Your task to perform on an android device: View the shopping cart on bestbuy. Add bose soundsport free to the cart on bestbuy Image 0: 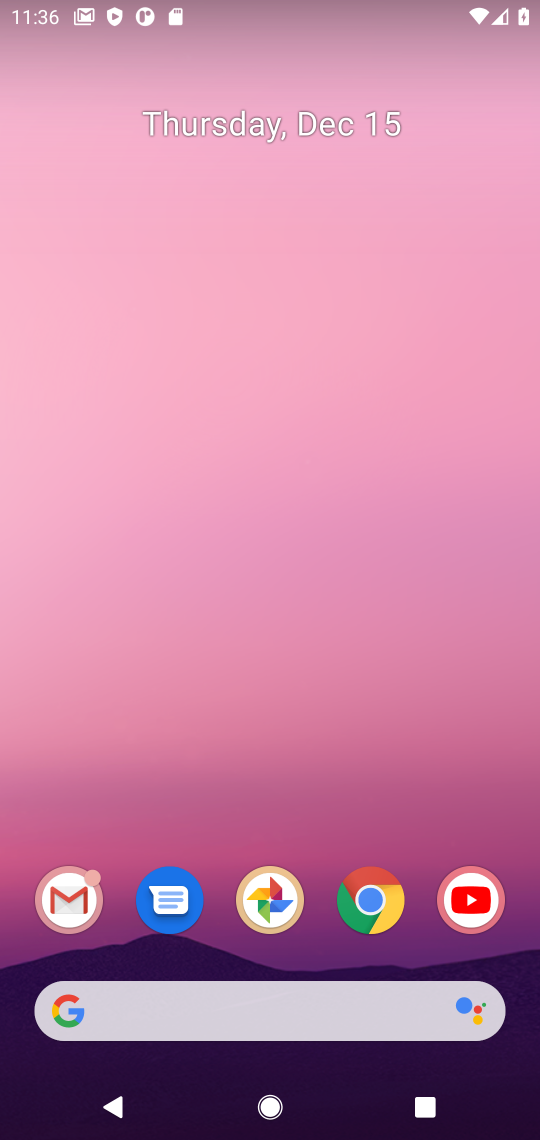
Step 0: click (380, 904)
Your task to perform on an android device: View the shopping cart on bestbuy. Add bose soundsport free to the cart on bestbuy Image 1: 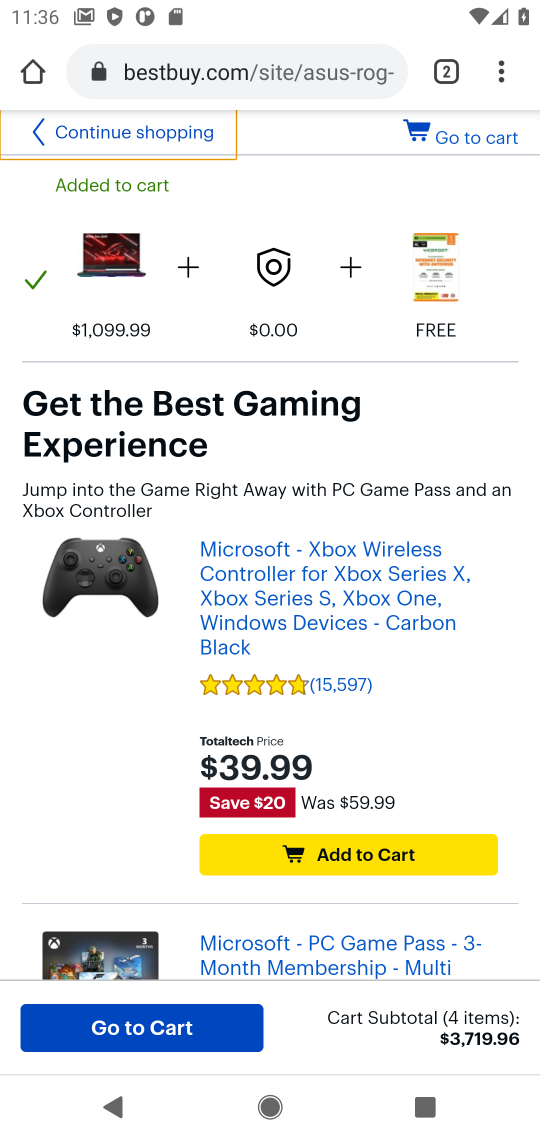
Step 1: press back button
Your task to perform on an android device: View the shopping cart on bestbuy. Add bose soundsport free to the cart on bestbuy Image 2: 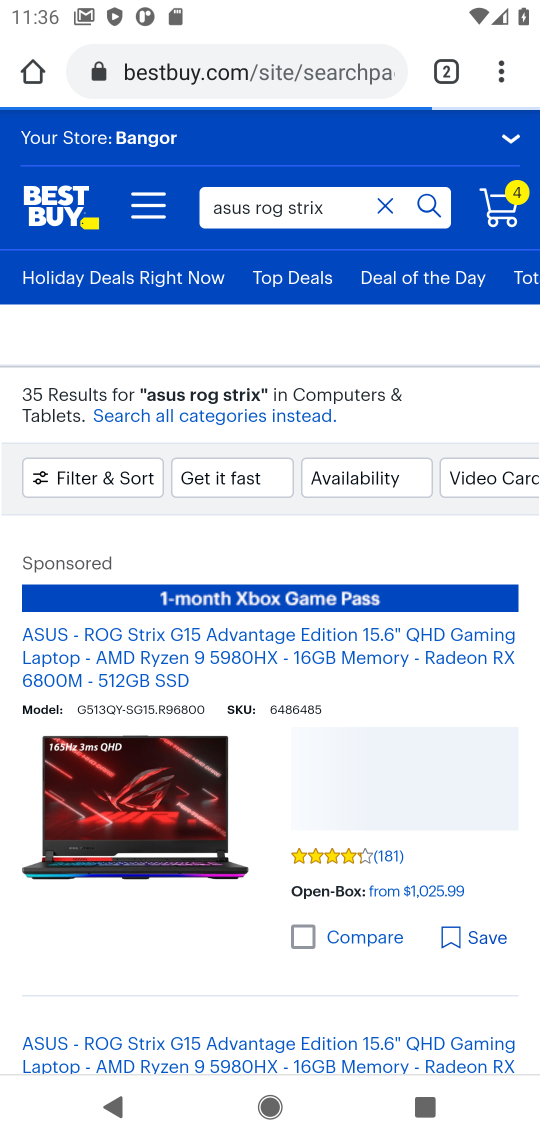
Step 2: click (503, 211)
Your task to perform on an android device: View the shopping cart on bestbuy. Add bose soundsport free to the cart on bestbuy Image 3: 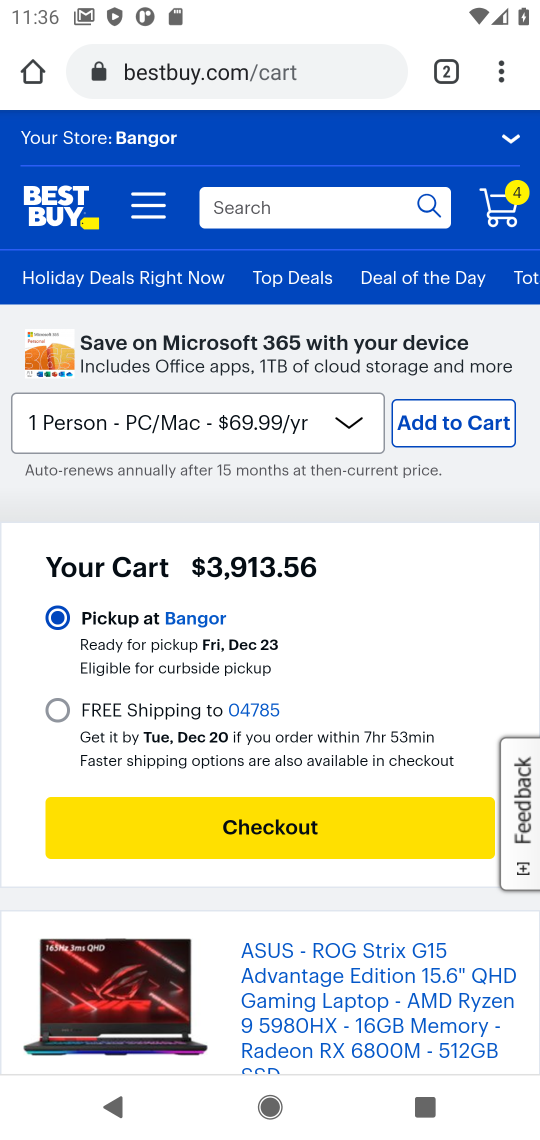
Step 3: click (358, 198)
Your task to perform on an android device: View the shopping cart on bestbuy. Add bose soundsport free to the cart on bestbuy Image 4: 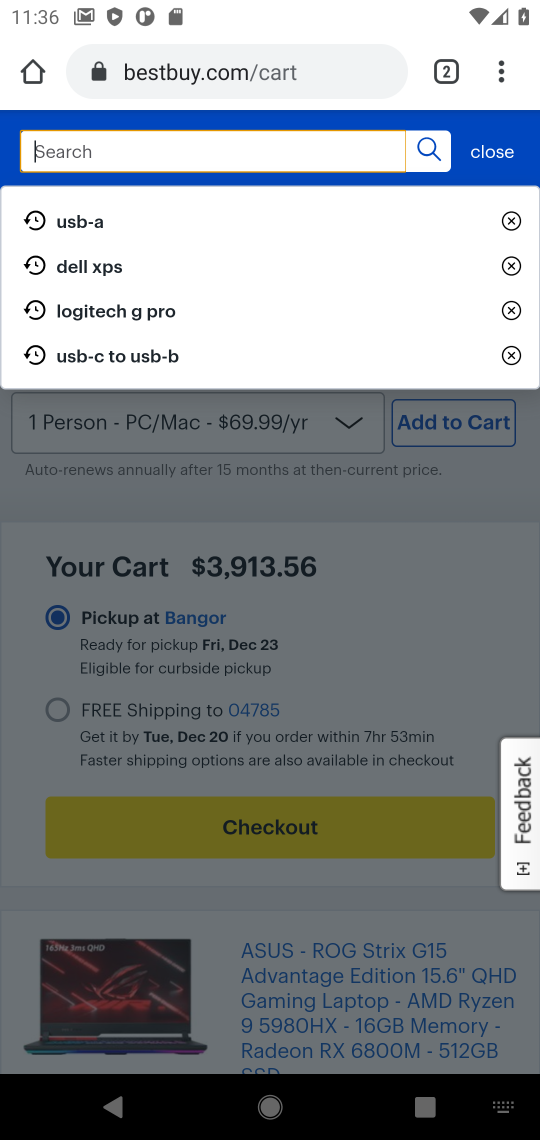
Step 4: press enter
Your task to perform on an android device: View the shopping cart on bestbuy. Add bose soundsport free to the cart on bestbuy Image 5: 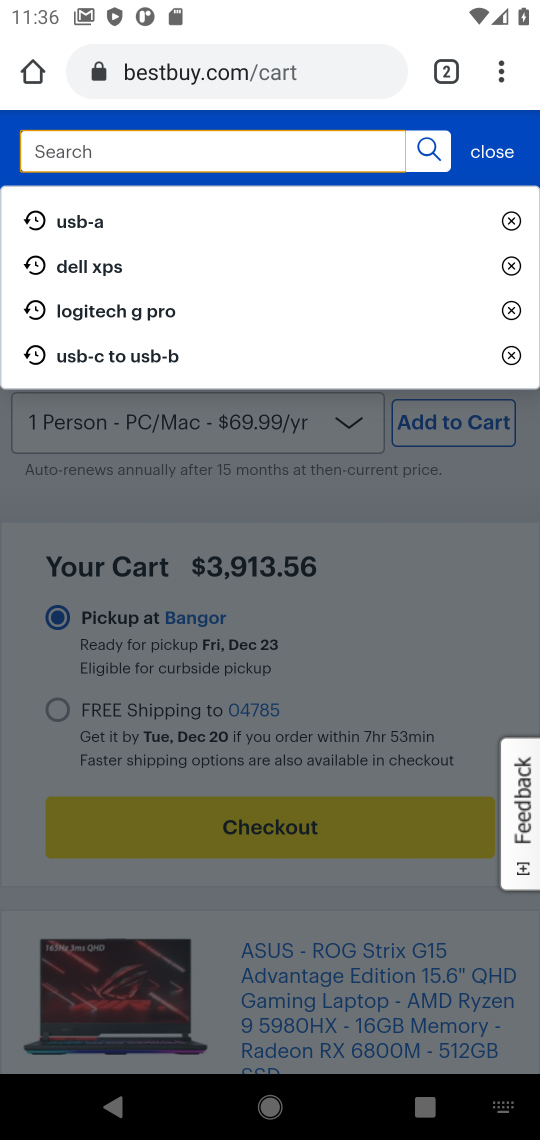
Step 5: type "bose soundsport free"
Your task to perform on an android device: View the shopping cart on bestbuy. Add bose soundsport free to the cart on bestbuy Image 6: 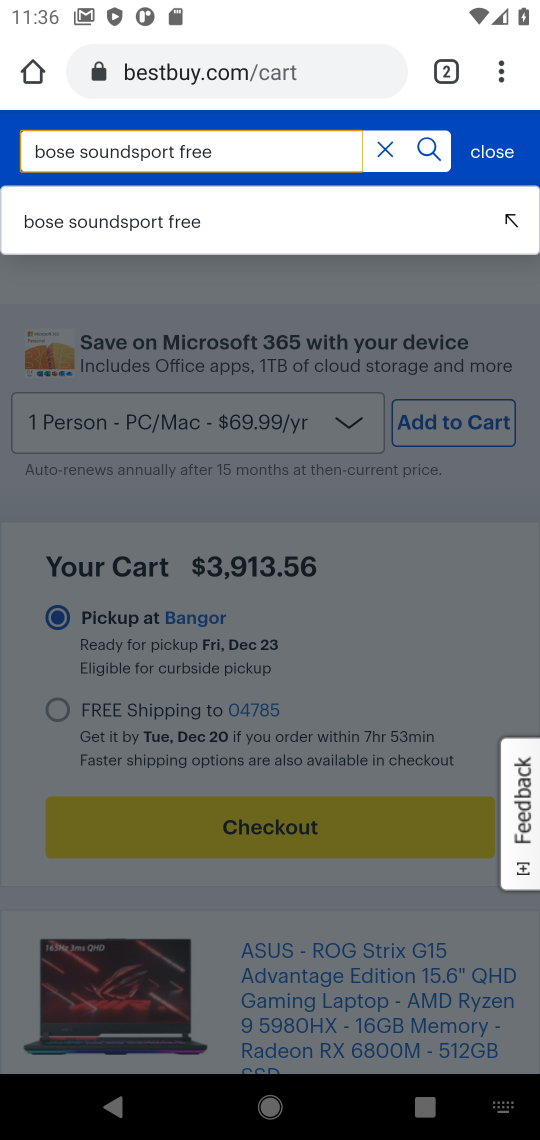
Step 6: click (153, 218)
Your task to perform on an android device: View the shopping cart on bestbuy. Add bose soundsport free to the cart on bestbuy Image 7: 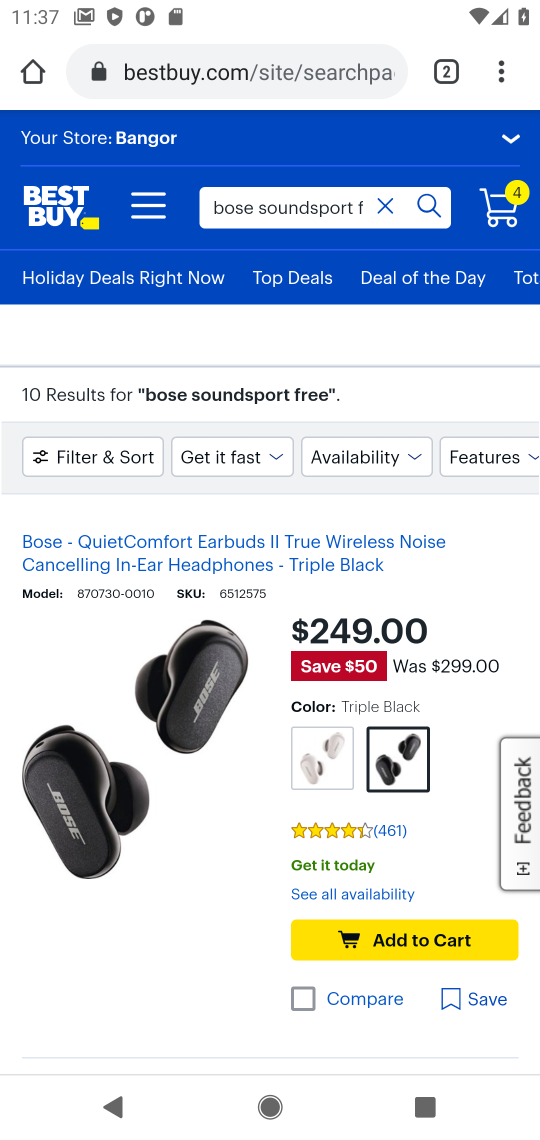
Step 7: drag from (200, 794) to (220, 260)
Your task to perform on an android device: View the shopping cart on bestbuy. Add bose soundsport free to the cart on bestbuy Image 8: 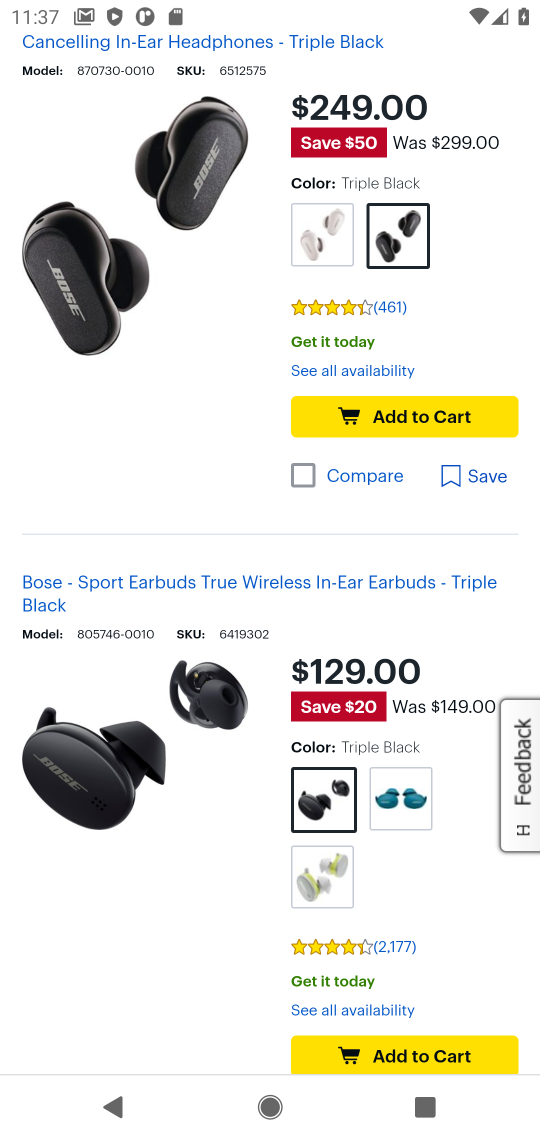
Step 8: drag from (170, 863) to (228, 275)
Your task to perform on an android device: View the shopping cart on bestbuy. Add bose soundsport free to the cart on bestbuy Image 9: 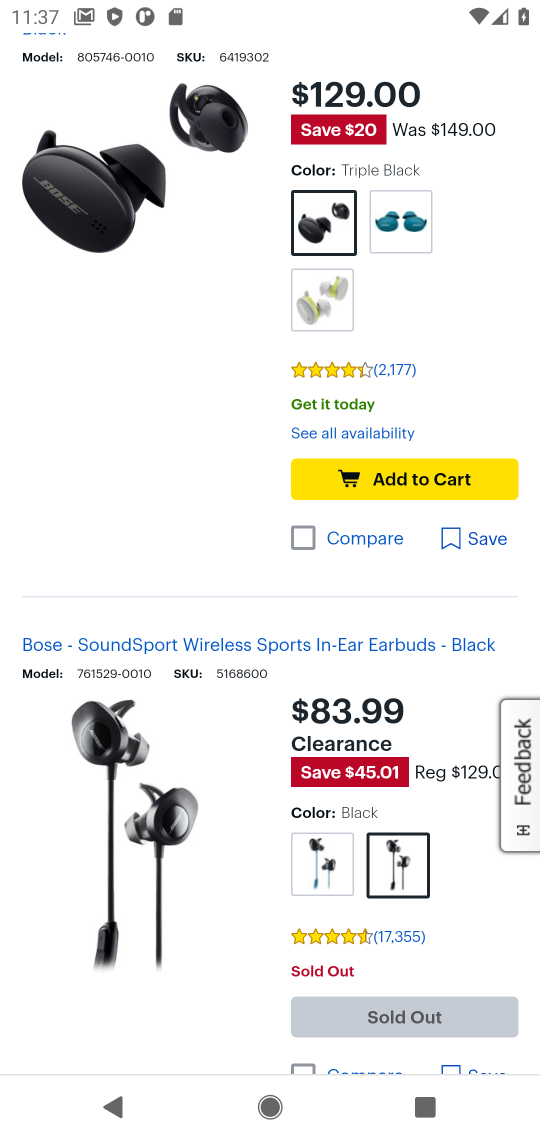
Step 9: drag from (177, 757) to (239, 178)
Your task to perform on an android device: View the shopping cart on bestbuy. Add bose soundsport free to the cart on bestbuy Image 10: 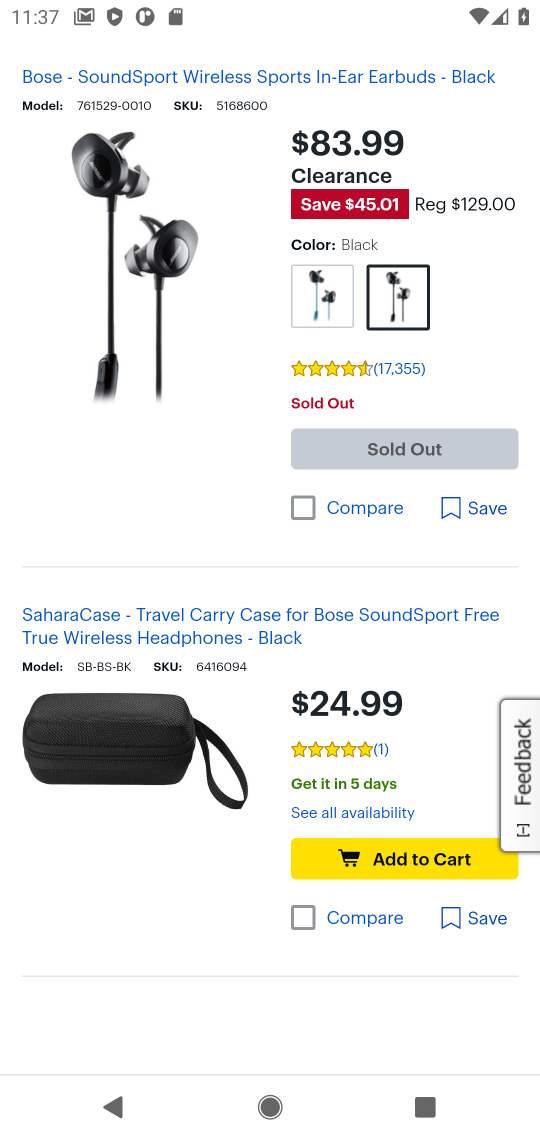
Step 10: drag from (185, 848) to (240, 463)
Your task to perform on an android device: View the shopping cart on bestbuy. Add bose soundsport free to the cart on bestbuy Image 11: 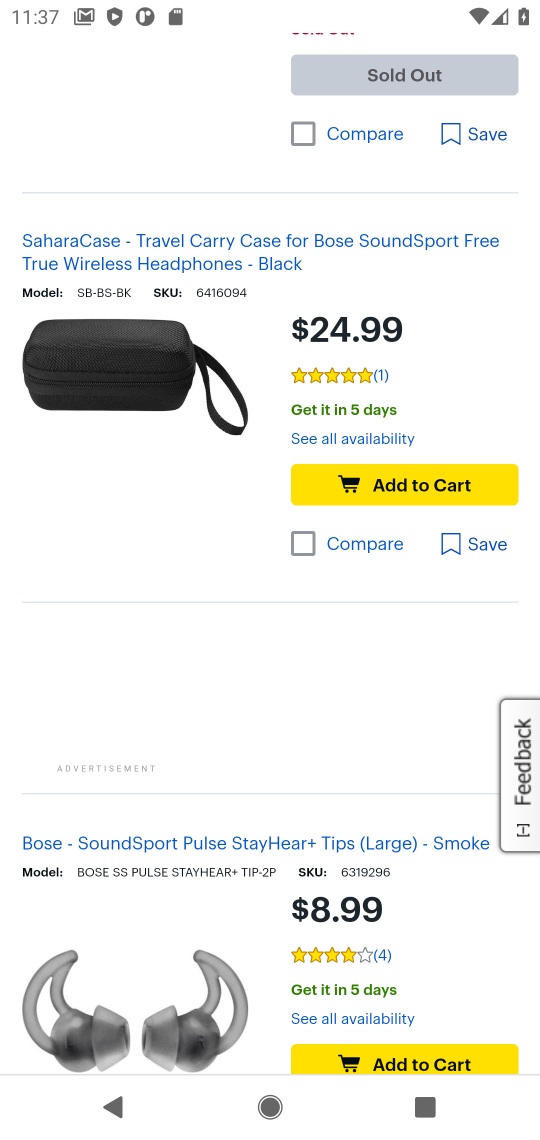
Step 11: drag from (277, 275) to (204, 1019)
Your task to perform on an android device: View the shopping cart on bestbuy. Add bose soundsport free to the cart on bestbuy Image 12: 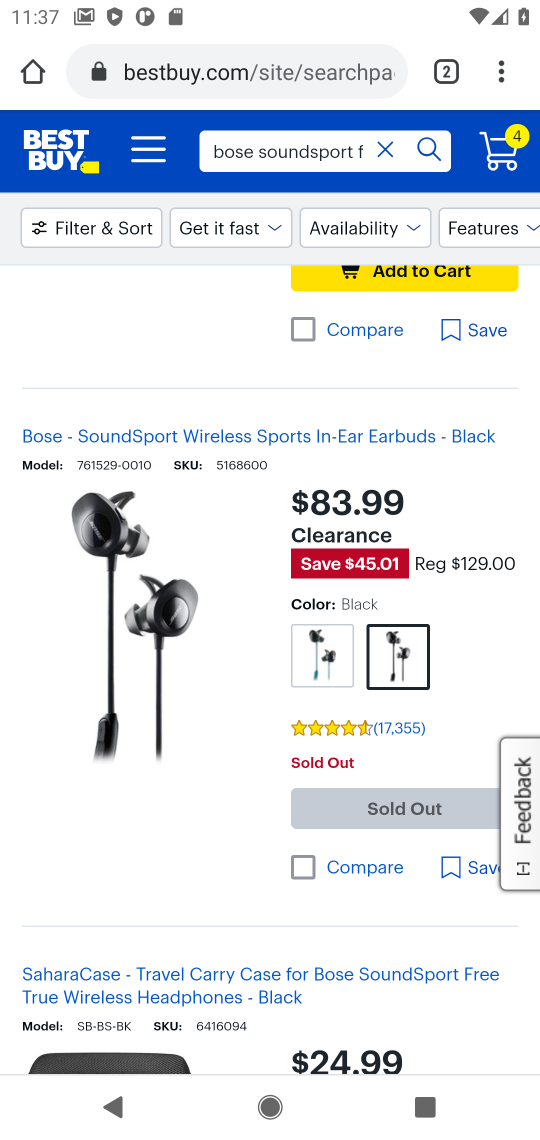
Step 12: click (183, 553)
Your task to perform on an android device: View the shopping cart on bestbuy. Add bose soundsport free to the cart on bestbuy Image 13: 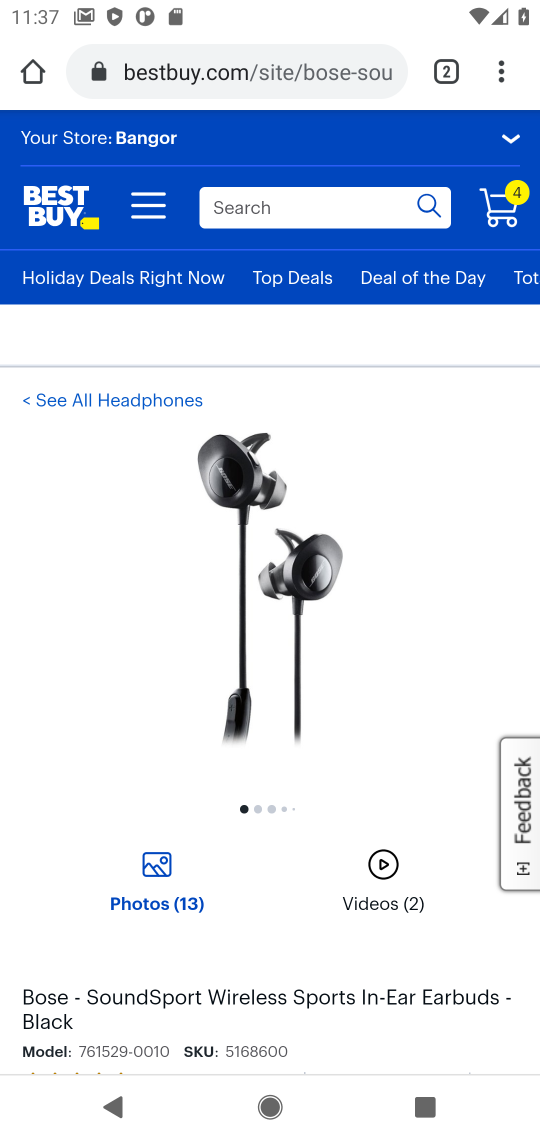
Step 13: drag from (427, 778) to (413, 214)
Your task to perform on an android device: View the shopping cart on bestbuy. Add bose soundsport free to the cart on bestbuy Image 14: 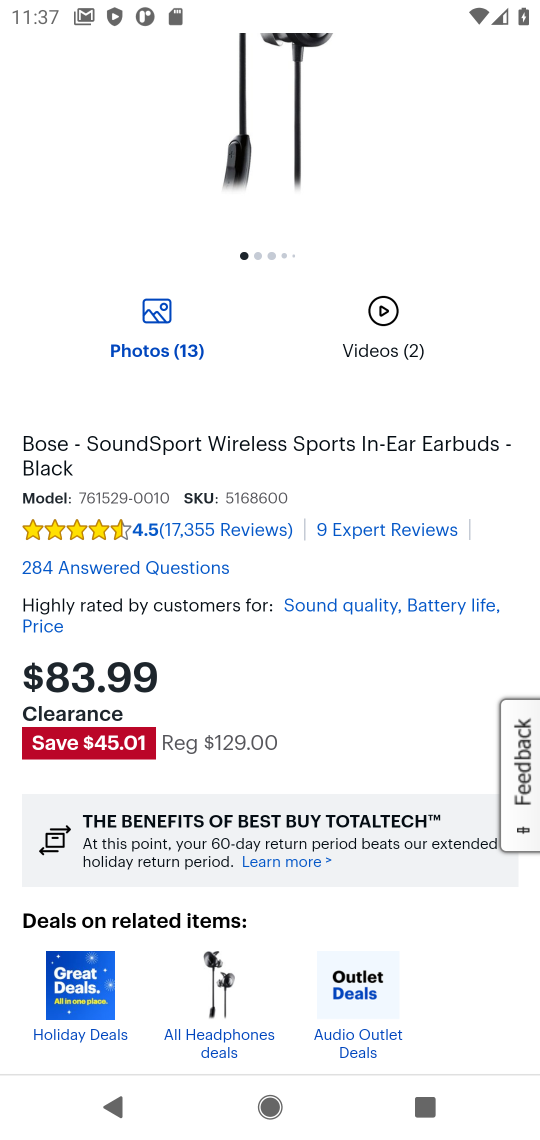
Step 14: drag from (438, 951) to (477, 570)
Your task to perform on an android device: View the shopping cart on bestbuy. Add bose soundsport free to the cart on bestbuy Image 15: 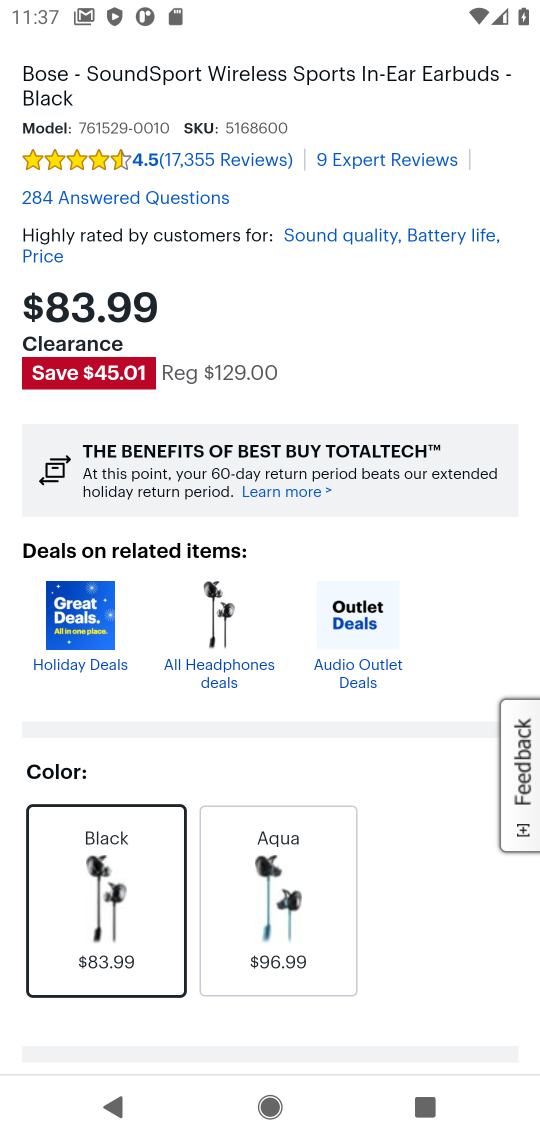
Step 15: drag from (437, 986) to (463, 409)
Your task to perform on an android device: View the shopping cart on bestbuy. Add bose soundsport free to the cart on bestbuy Image 16: 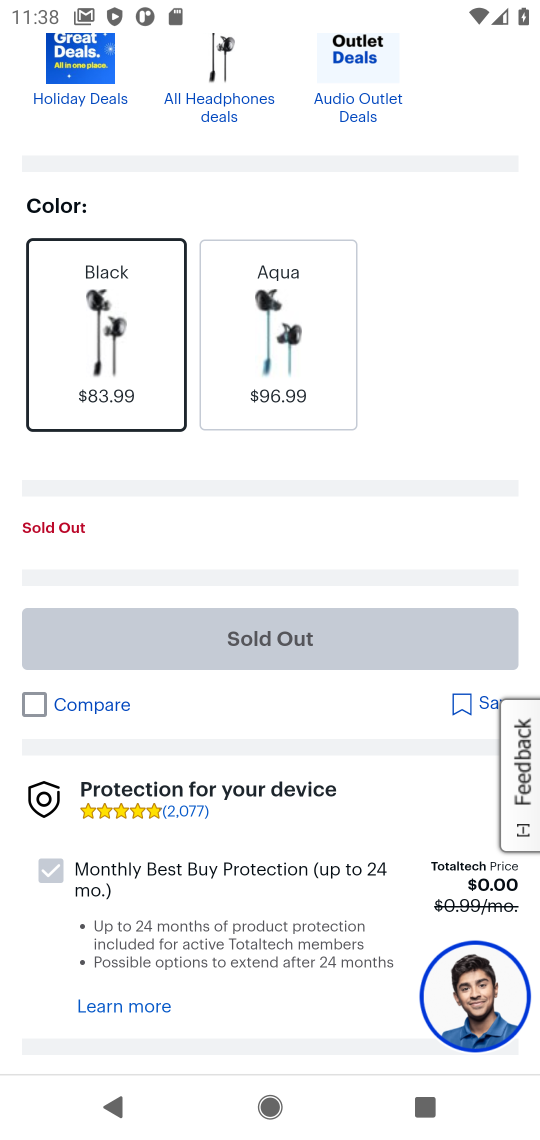
Step 16: press back button
Your task to perform on an android device: View the shopping cart on bestbuy. Add bose soundsport free to the cart on bestbuy Image 17: 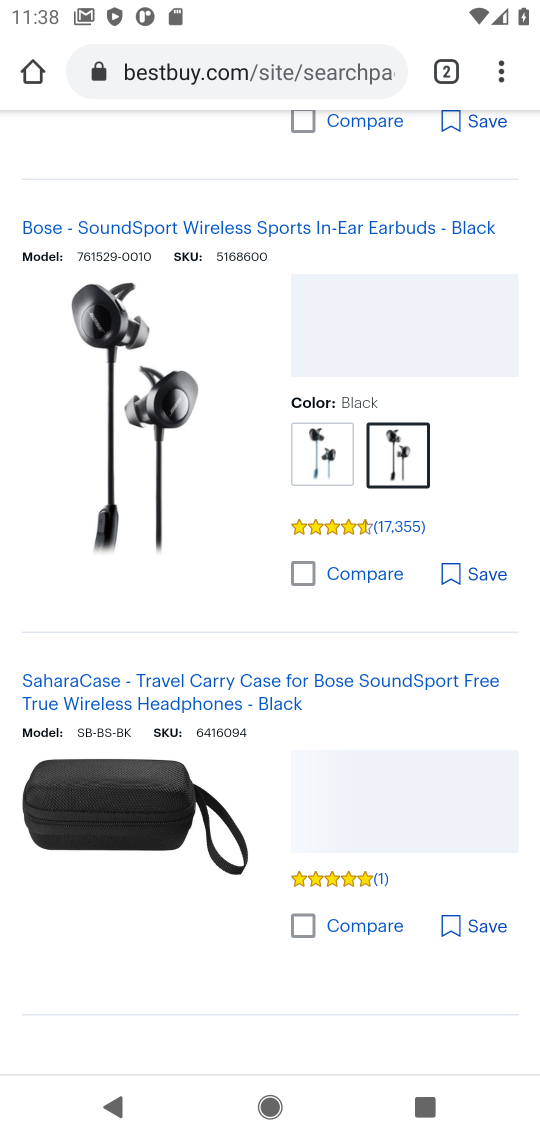
Step 17: drag from (196, 943) to (317, 318)
Your task to perform on an android device: View the shopping cart on bestbuy. Add bose soundsport free to the cart on bestbuy Image 18: 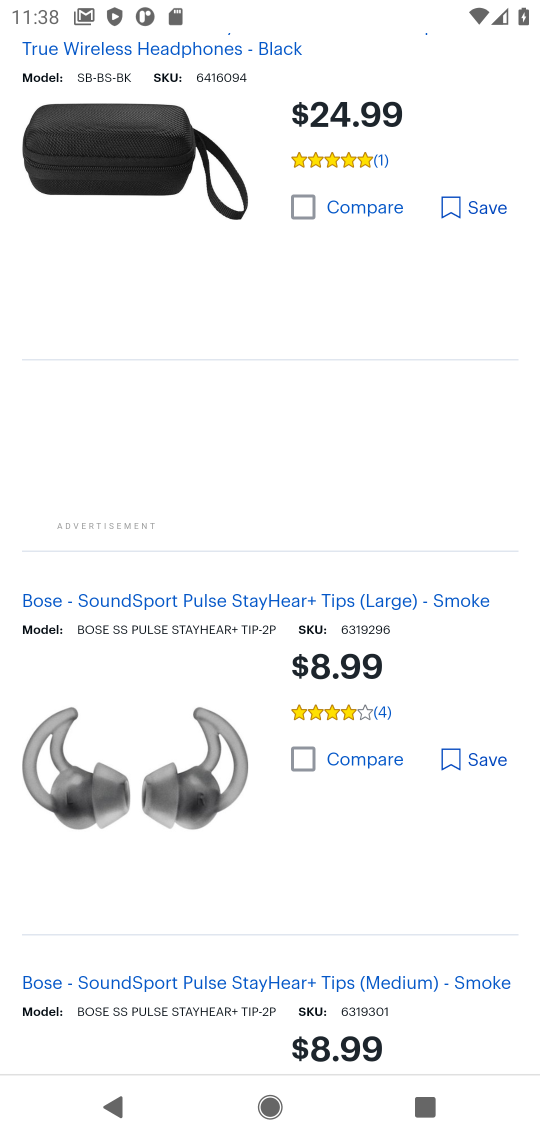
Step 18: click (141, 723)
Your task to perform on an android device: View the shopping cart on bestbuy. Add bose soundsport free to the cart on bestbuy Image 19: 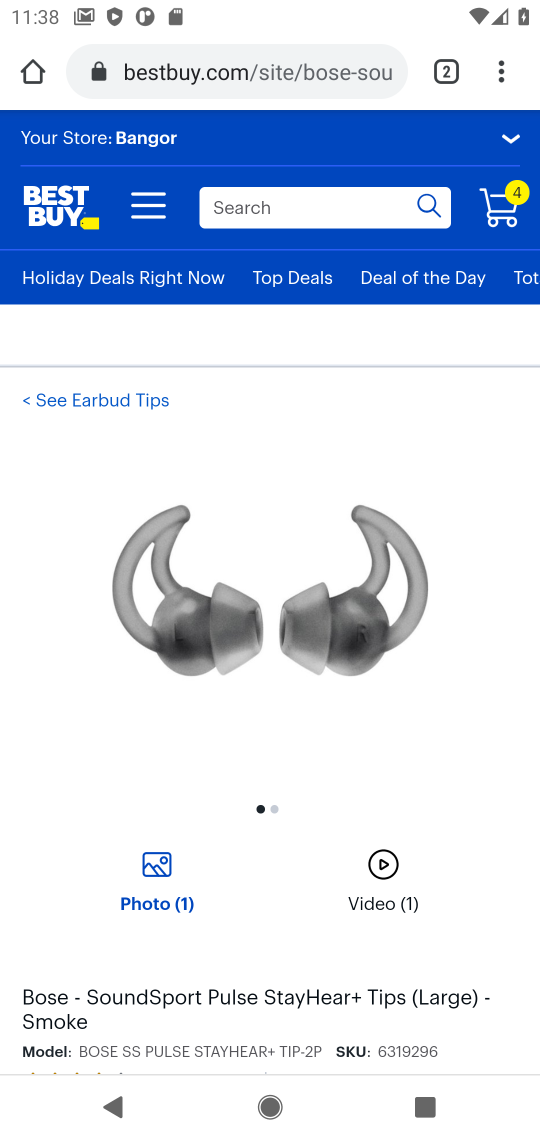
Step 19: drag from (394, 744) to (463, 299)
Your task to perform on an android device: View the shopping cart on bestbuy. Add bose soundsport free to the cart on bestbuy Image 20: 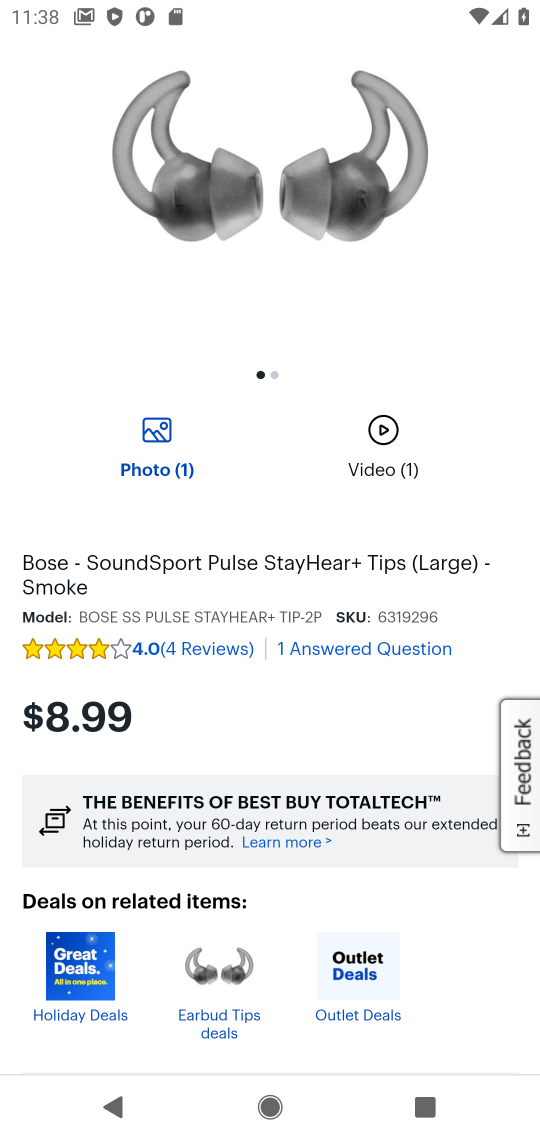
Step 20: drag from (352, 859) to (465, 339)
Your task to perform on an android device: View the shopping cart on bestbuy. Add bose soundsport free to the cart on bestbuy Image 21: 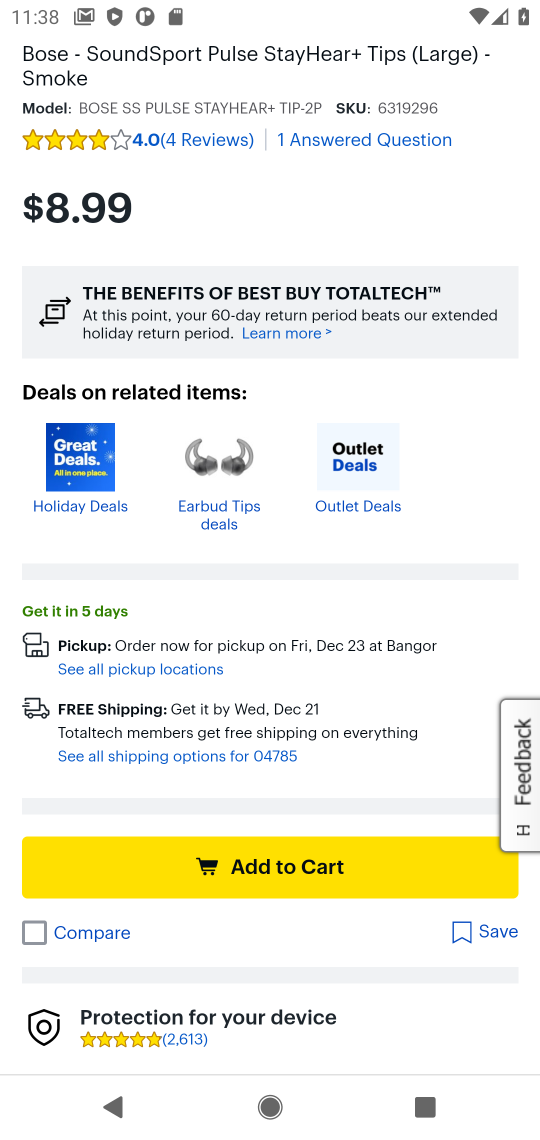
Step 21: click (307, 861)
Your task to perform on an android device: View the shopping cart on bestbuy. Add bose soundsport free to the cart on bestbuy Image 22: 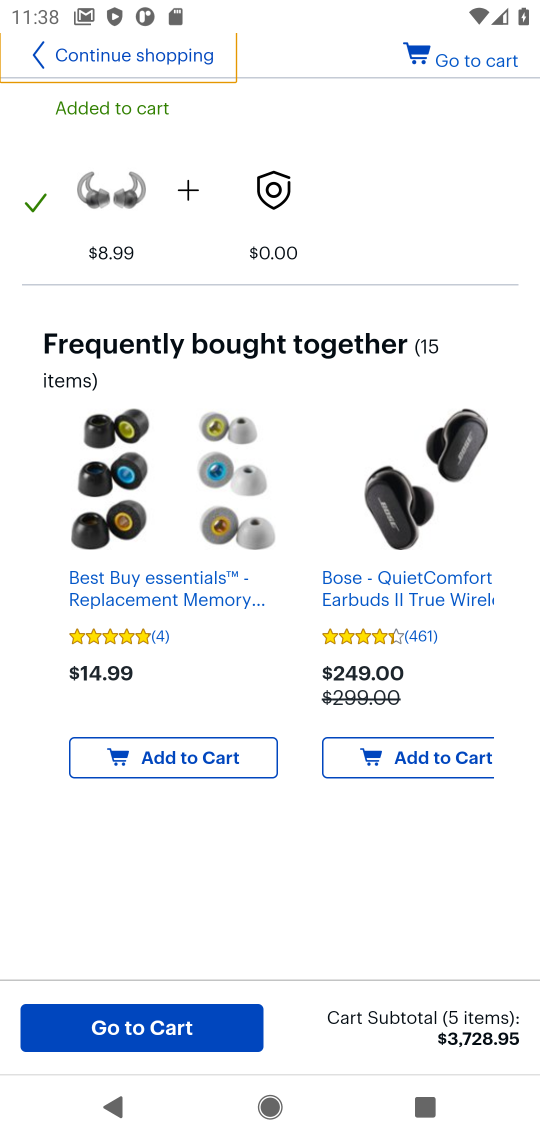
Step 22: task complete